Your task to perform on an android device: Open accessibility settings Image 0: 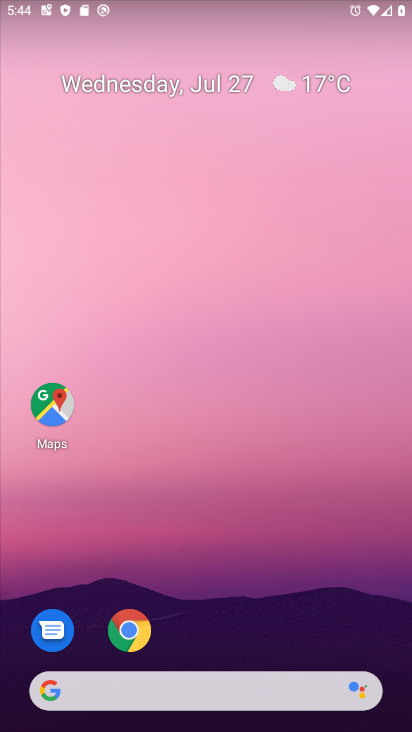
Step 0: press home button
Your task to perform on an android device: Open accessibility settings Image 1: 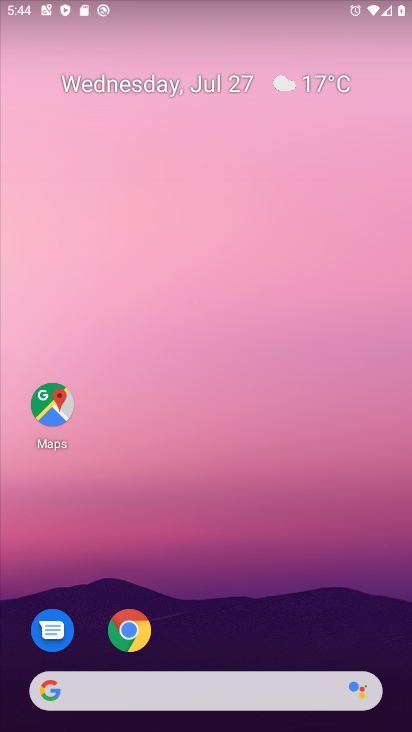
Step 1: drag from (218, 655) to (201, 30)
Your task to perform on an android device: Open accessibility settings Image 2: 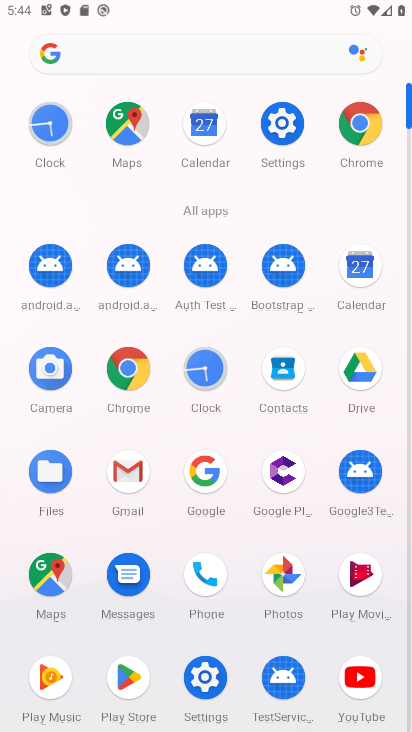
Step 2: click (279, 121)
Your task to perform on an android device: Open accessibility settings Image 3: 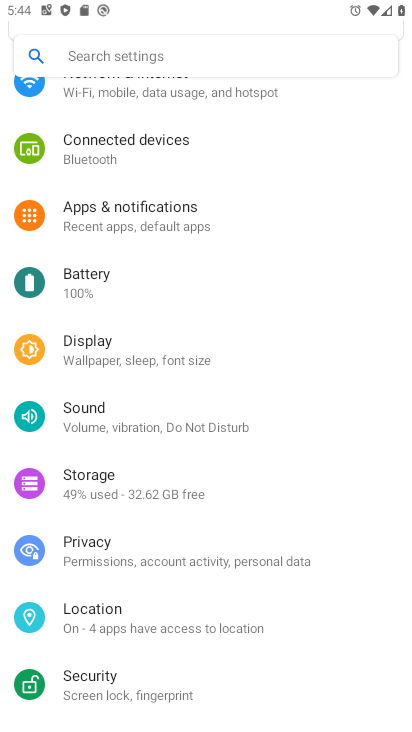
Step 3: drag from (123, 695) to (176, 192)
Your task to perform on an android device: Open accessibility settings Image 4: 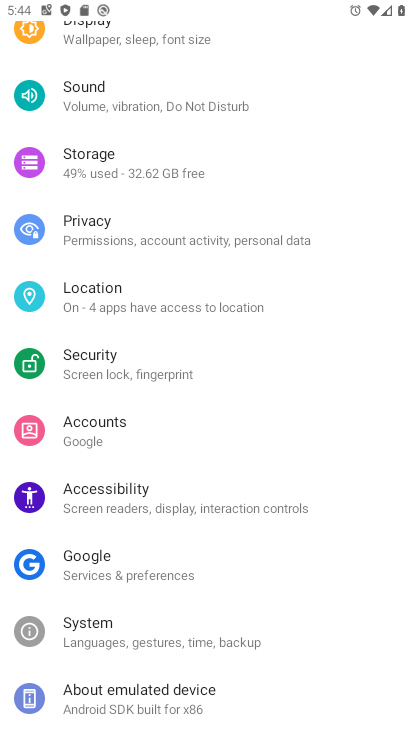
Step 4: click (157, 489)
Your task to perform on an android device: Open accessibility settings Image 5: 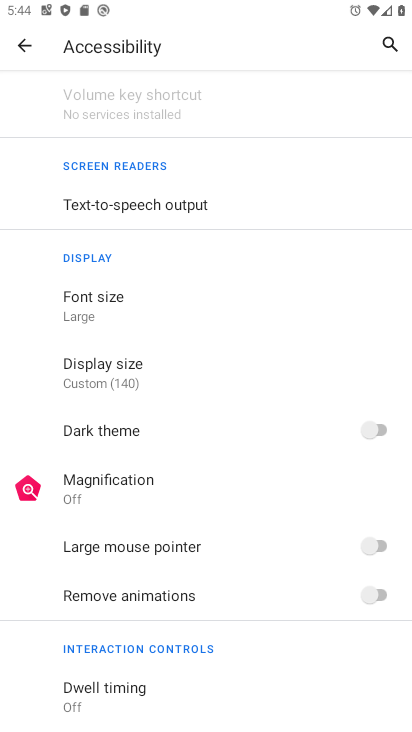
Step 5: task complete